Your task to perform on an android device: Go to ESPN.com Image 0: 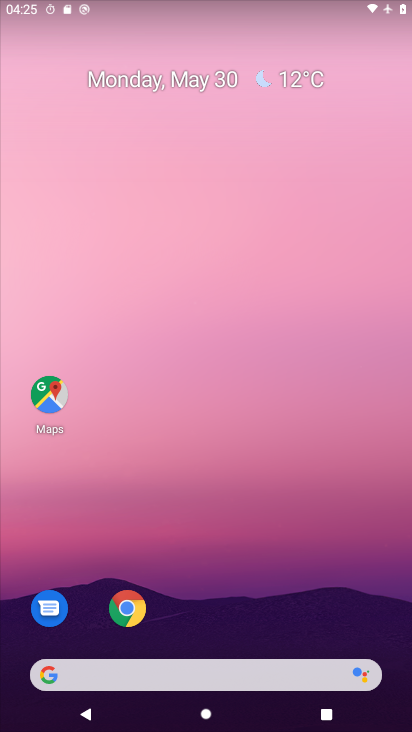
Step 0: click (139, 610)
Your task to perform on an android device: Go to ESPN.com Image 1: 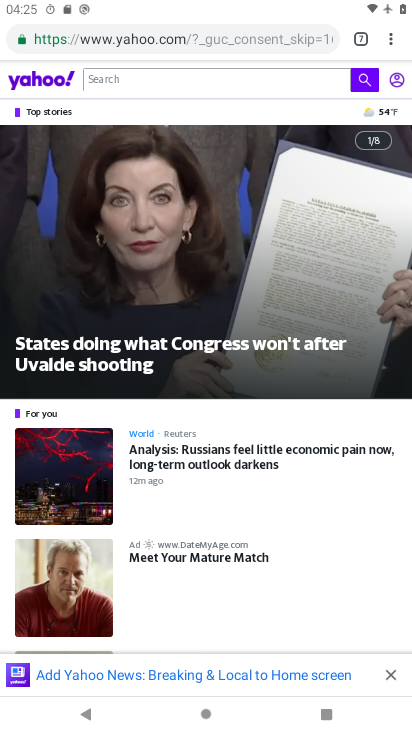
Step 1: click (363, 35)
Your task to perform on an android device: Go to ESPN.com Image 2: 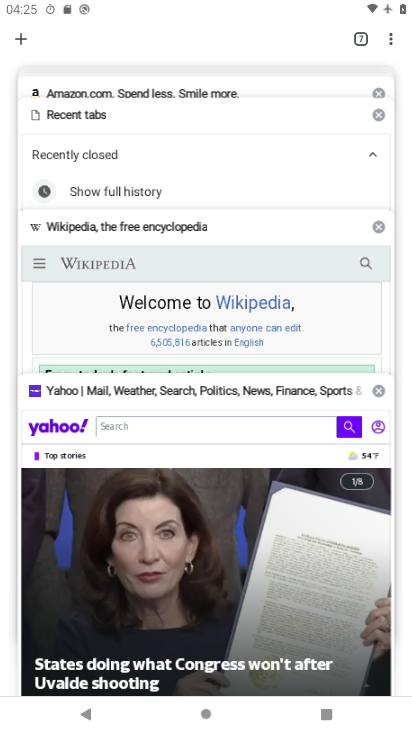
Step 2: click (24, 44)
Your task to perform on an android device: Go to ESPN.com Image 3: 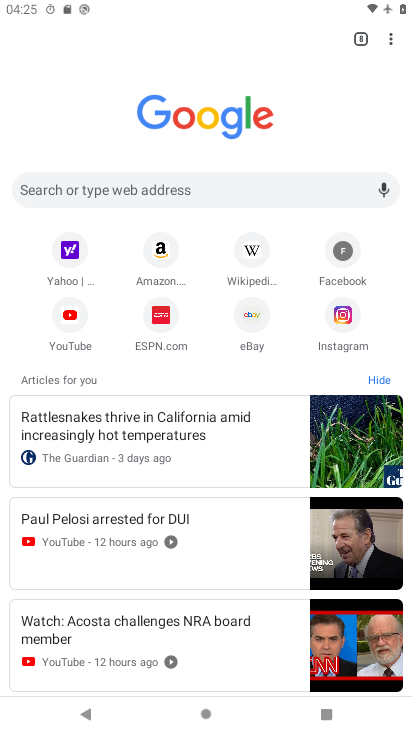
Step 3: click (159, 326)
Your task to perform on an android device: Go to ESPN.com Image 4: 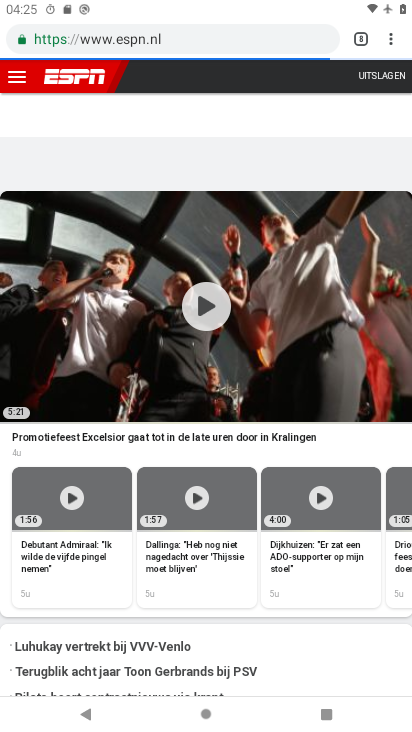
Step 4: task complete